Your task to perform on an android device: Open the stopwatch Image 0: 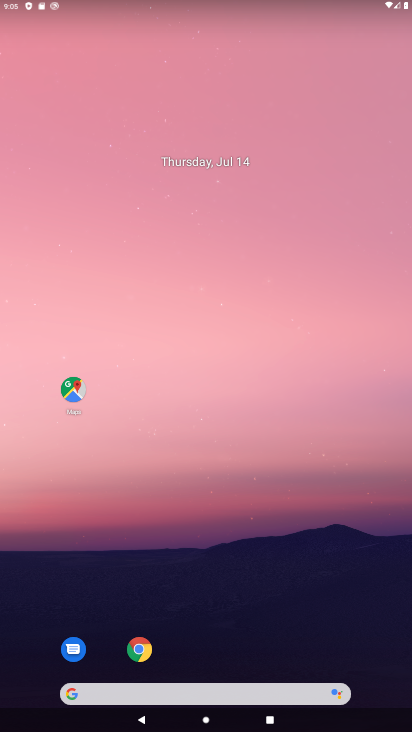
Step 0: drag from (222, 662) to (183, 316)
Your task to perform on an android device: Open the stopwatch Image 1: 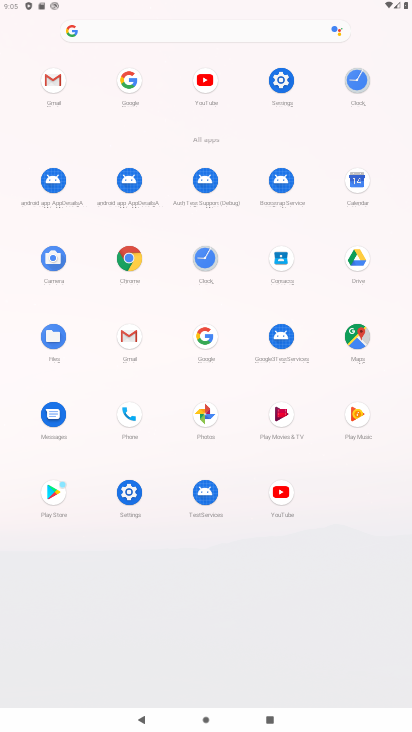
Step 1: click (363, 88)
Your task to perform on an android device: Open the stopwatch Image 2: 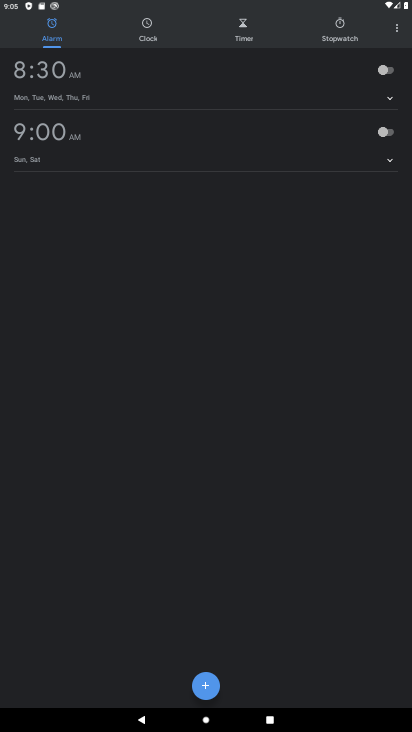
Step 2: click (337, 36)
Your task to perform on an android device: Open the stopwatch Image 3: 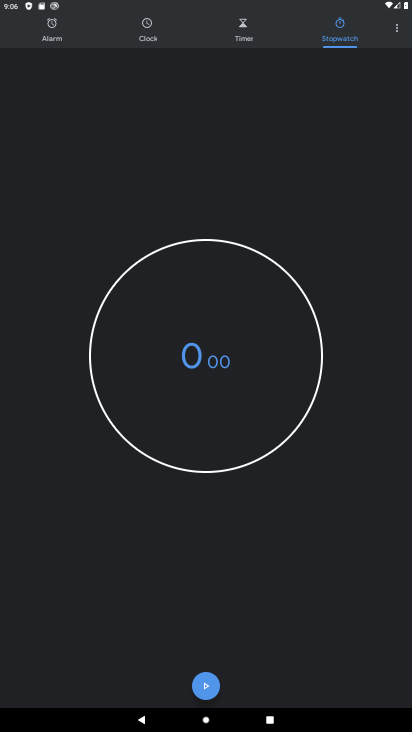
Step 3: task complete